Your task to perform on an android device: open a new tab in the chrome app Image 0: 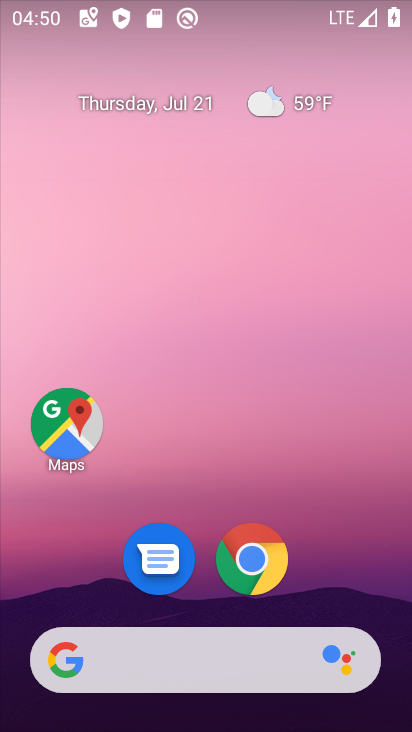
Step 0: click (245, 554)
Your task to perform on an android device: open a new tab in the chrome app Image 1: 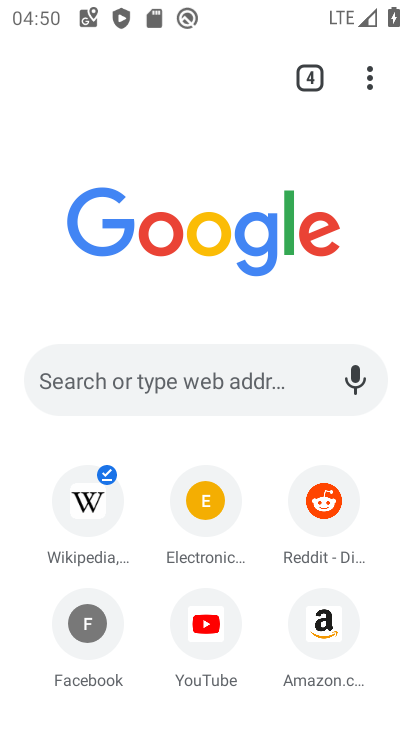
Step 1: task complete